Your task to perform on an android device: Check the weather Image 0: 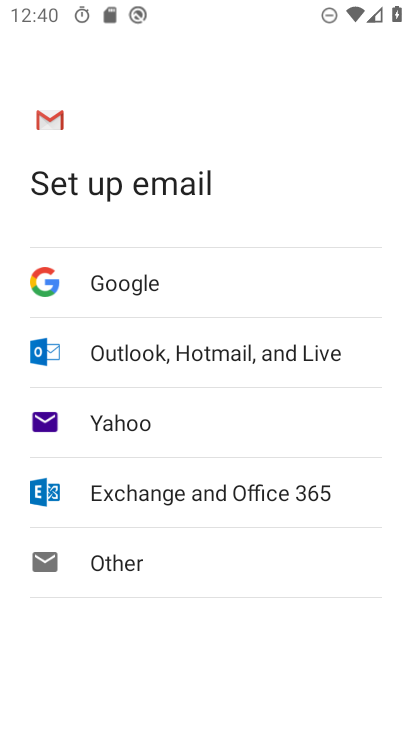
Step 0: press home button
Your task to perform on an android device: Check the weather Image 1: 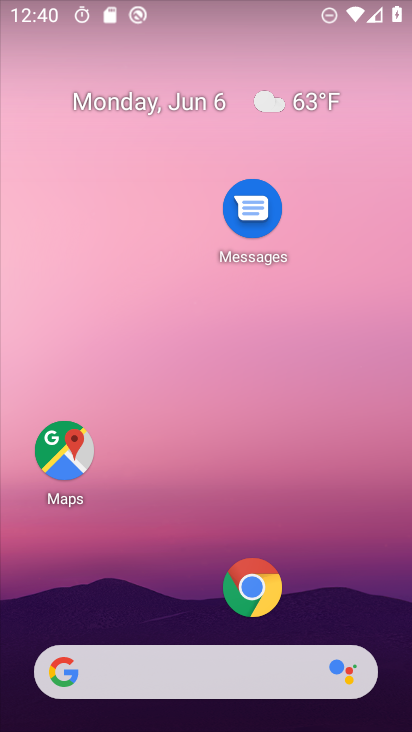
Step 1: click (332, 102)
Your task to perform on an android device: Check the weather Image 2: 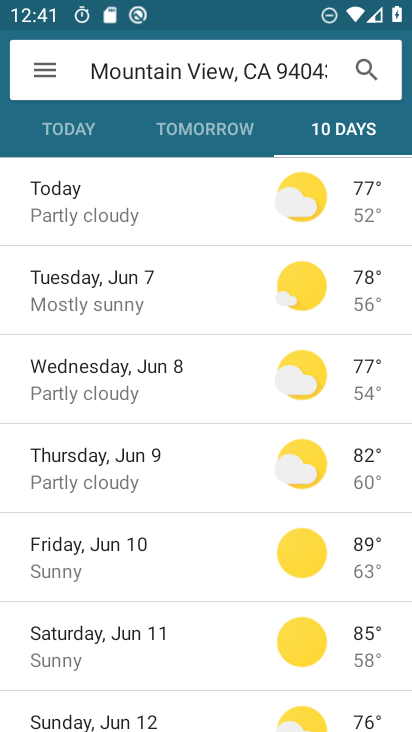
Step 2: click (72, 127)
Your task to perform on an android device: Check the weather Image 3: 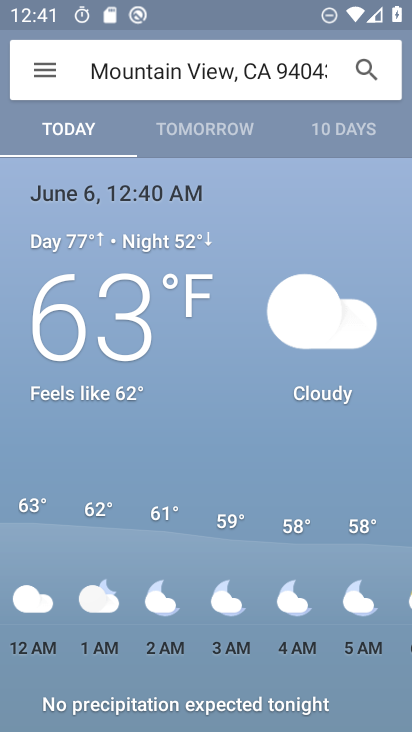
Step 3: task complete